Your task to perform on an android device: Open display settings Image 0: 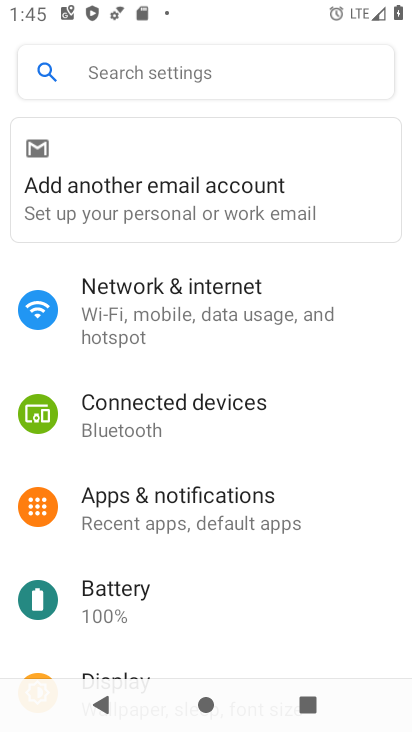
Step 0: press home button
Your task to perform on an android device: Open display settings Image 1: 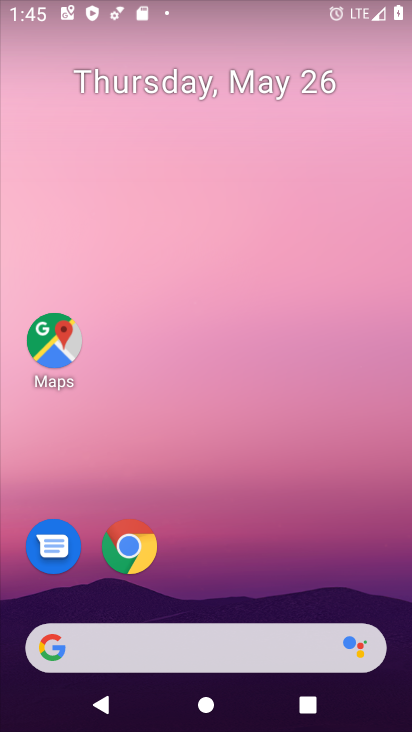
Step 1: drag from (395, 657) to (292, 33)
Your task to perform on an android device: Open display settings Image 2: 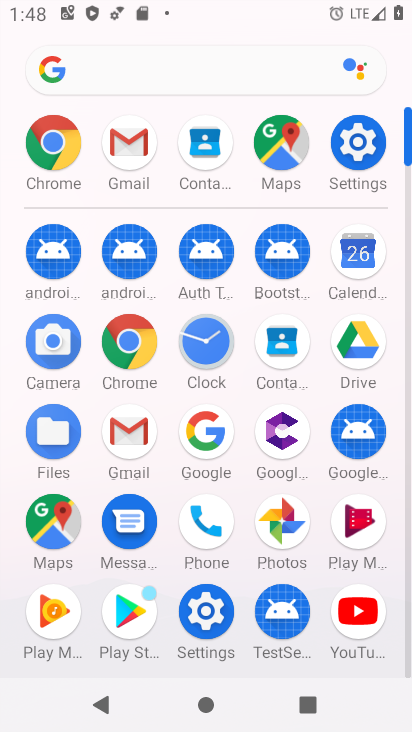
Step 2: click (213, 619)
Your task to perform on an android device: Open display settings Image 3: 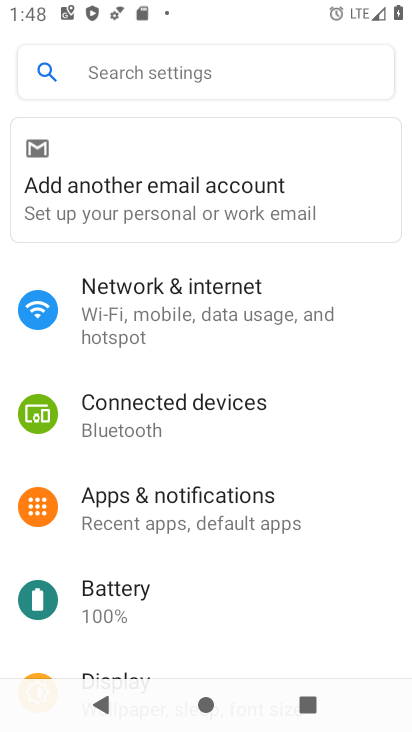
Step 3: click (139, 662)
Your task to perform on an android device: Open display settings Image 4: 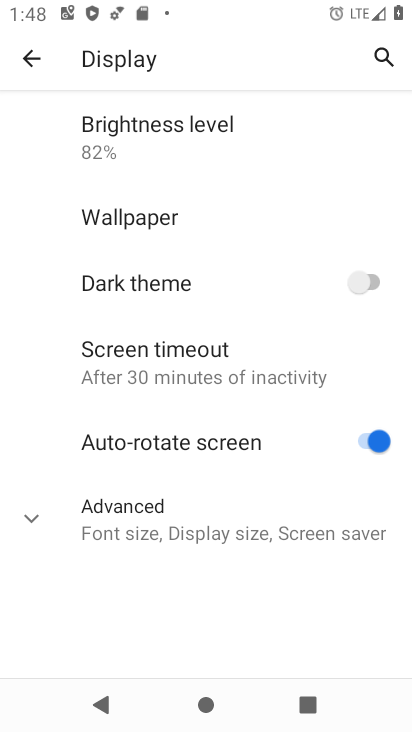
Step 4: task complete